Your task to perform on an android device: Check the weather Image 0: 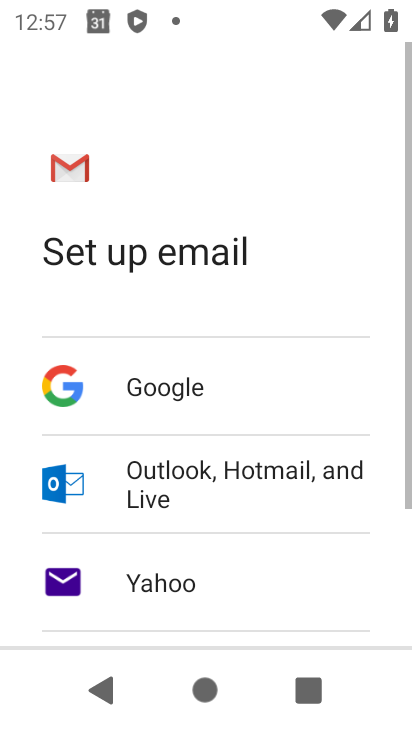
Step 0: press back button
Your task to perform on an android device: Check the weather Image 1: 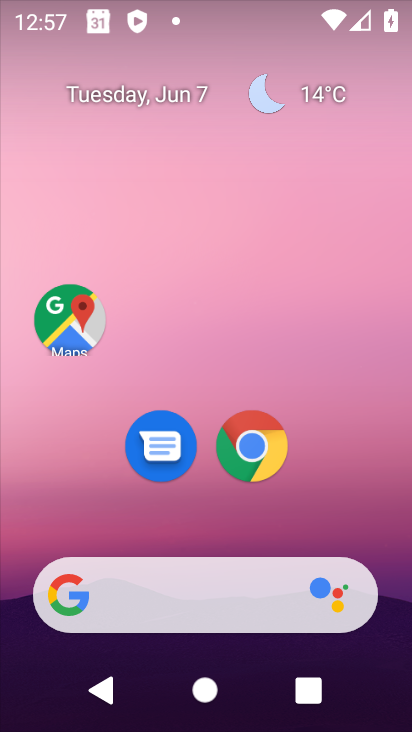
Step 1: drag from (347, 544) to (263, 25)
Your task to perform on an android device: Check the weather Image 2: 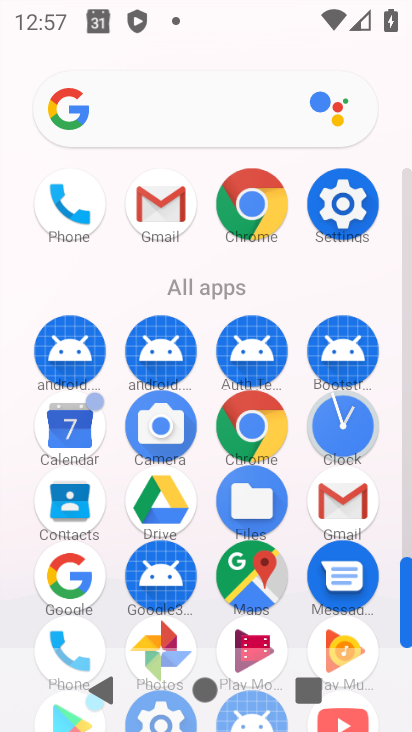
Step 2: click (253, 204)
Your task to perform on an android device: Check the weather Image 3: 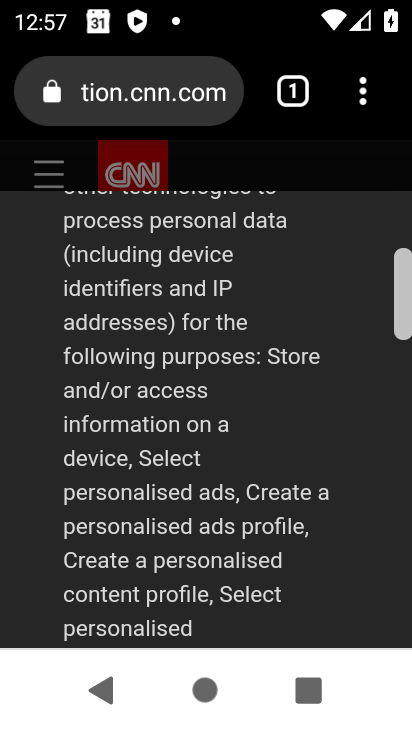
Step 3: click (180, 84)
Your task to perform on an android device: Check the weather Image 4: 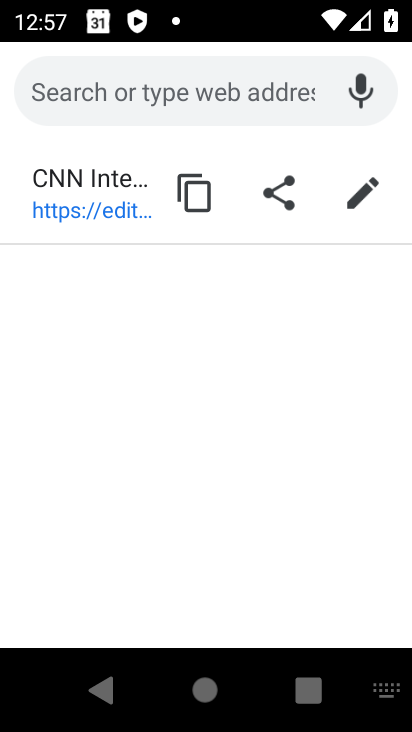
Step 4: type "Check the weather"
Your task to perform on an android device: Check the weather Image 5: 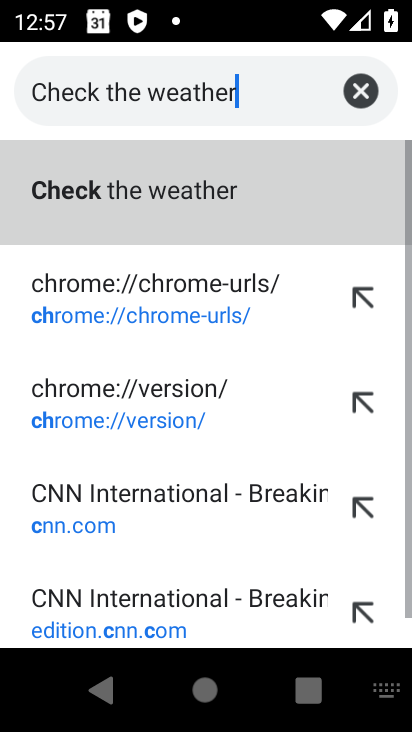
Step 5: type ""
Your task to perform on an android device: Check the weather Image 6: 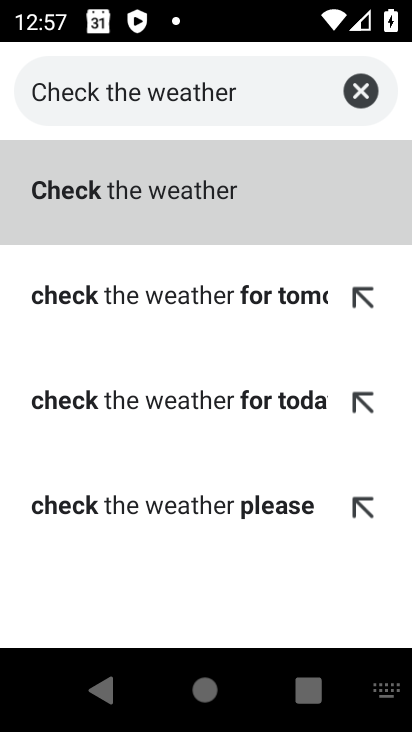
Step 6: click (227, 194)
Your task to perform on an android device: Check the weather Image 7: 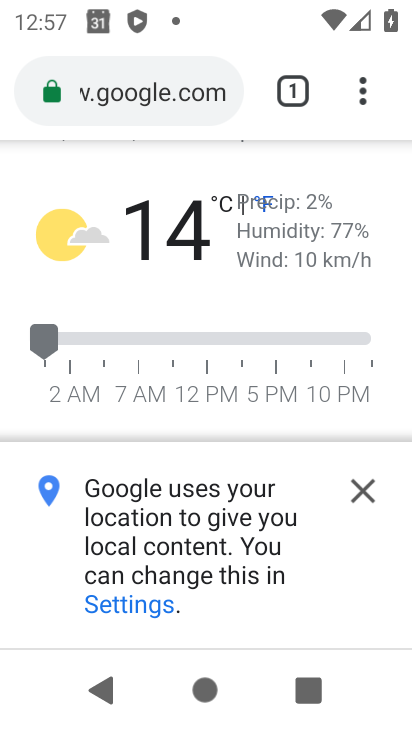
Step 7: click (360, 495)
Your task to perform on an android device: Check the weather Image 8: 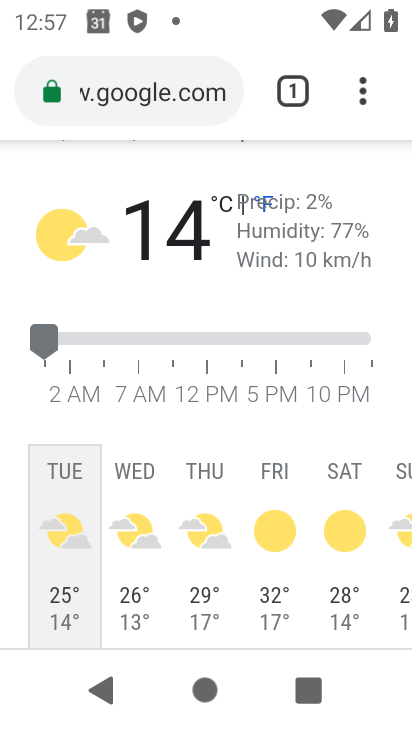
Step 8: task complete